Your task to perform on an android device: turn on data saver in the chrome app Image 0: 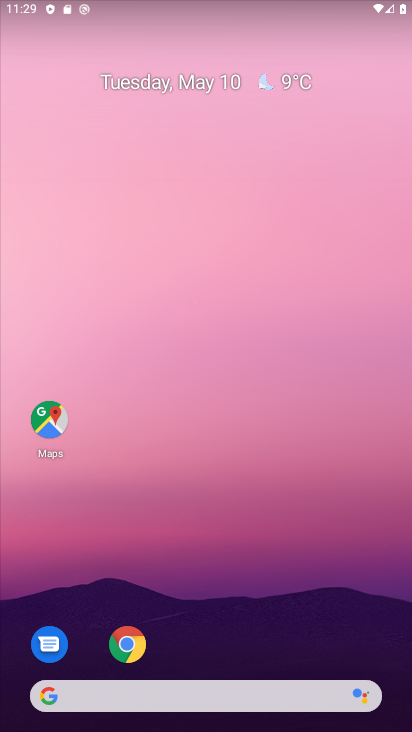
Step 0: drag from (203, 600) to (268, 214)
Your task to perform on an android device: turn on data saver in the chrome app Image 1: 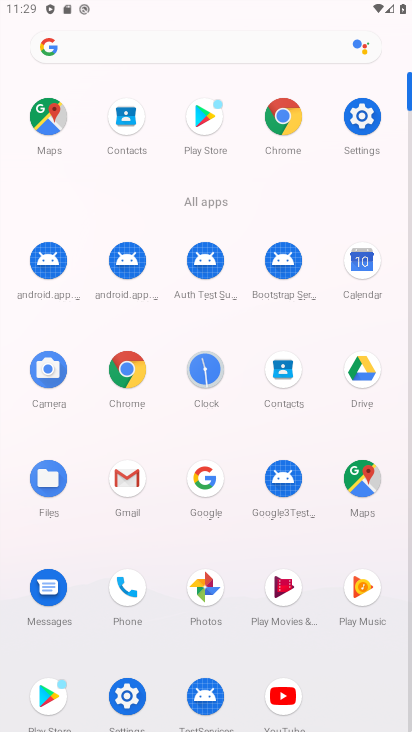
Step 1: click (286, 132)
Your task to perform on an android device: turn on data saver in the chrome app Image 2: 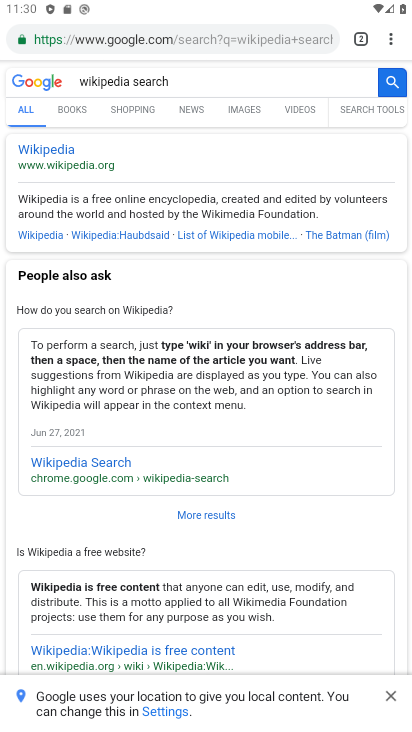
Step 2: click (385, 39)
Your task to perform on an android device: turn on data saver in the chrome app Image 3: 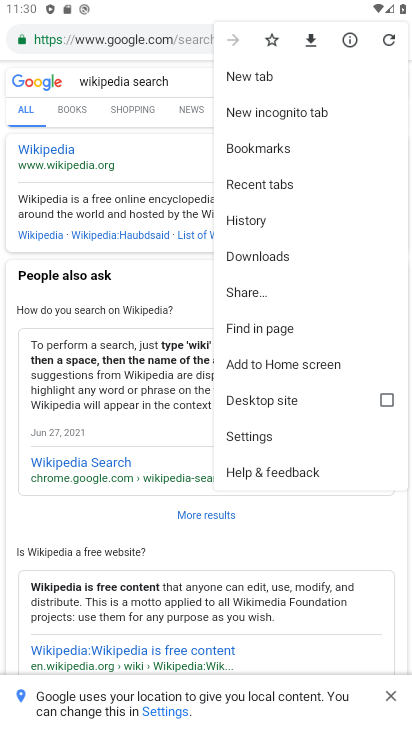
Step 3: click (251, 434)
Your task to perform on an android device: turn on data saver in the chrome app Image 4: 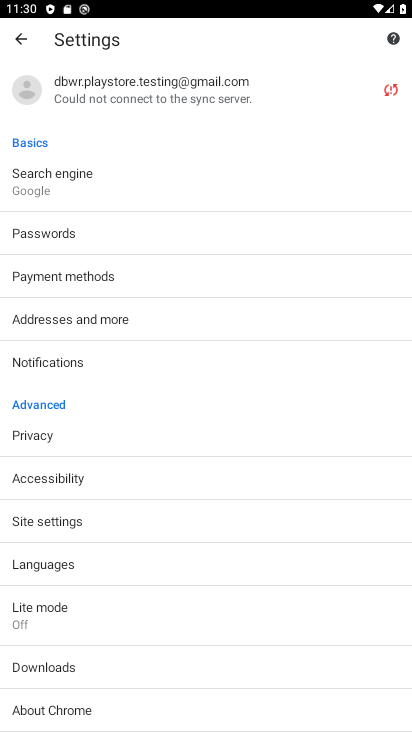
Step 4: click (75, 614)
Your task to perform on an android device: turn on data saver in the chrome app Image 5: 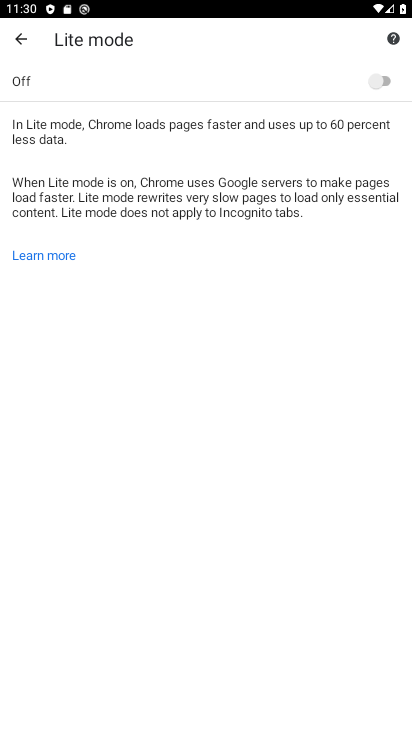
Step 5: click (391, 80)
Your task to perform on an android device: turn on data saver in the chrome app Image 6: 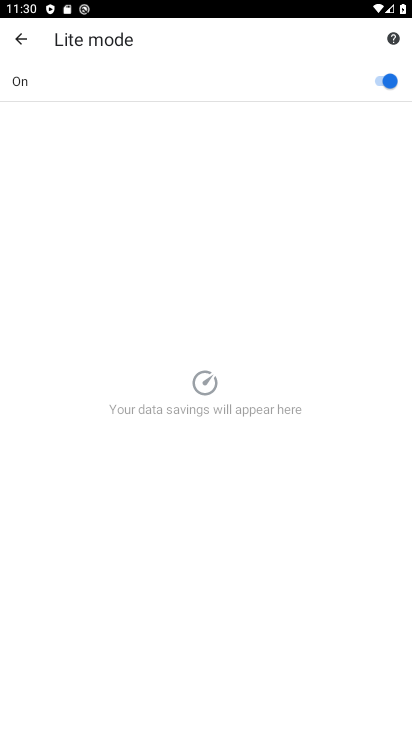
Step 6: task complete